Your task to perform on an android device: See recent photos Image 0: 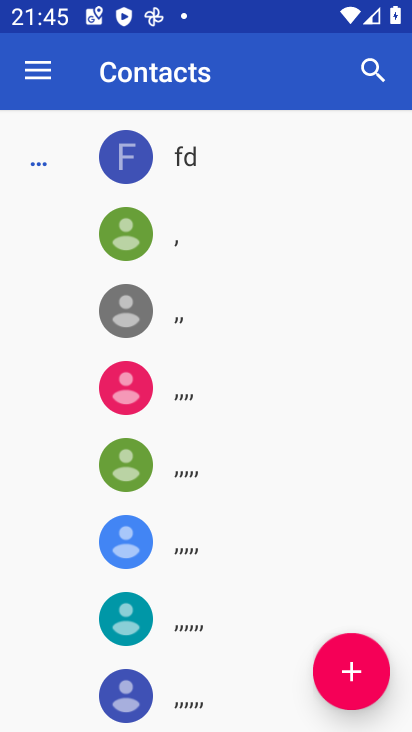
Step 0: press home button
Your task to perform on an android device: See recent photos Image 1: 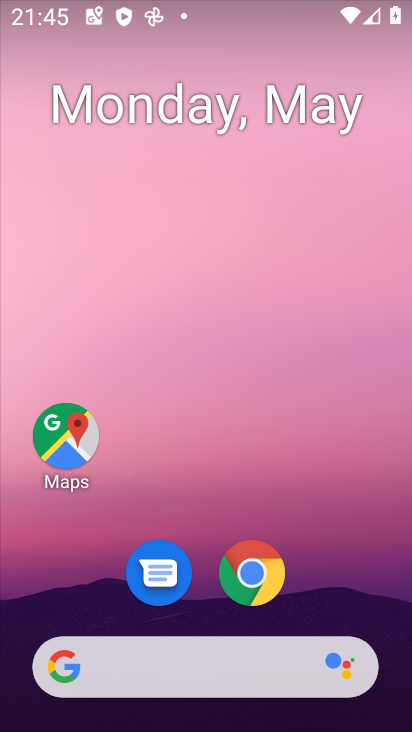
Step 1: drag from (338, 574) to (257, 36)
Your task to perform on an android device: See recent photos Image 2: 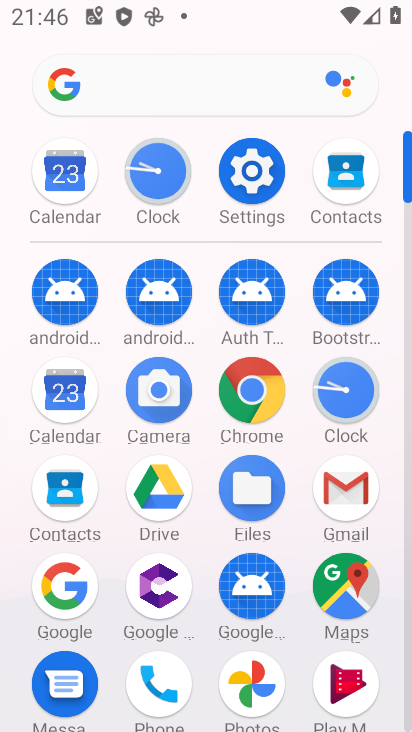
Step 2: click (245, 665)
Your task to perform on an android device: See recent photos Image 3: 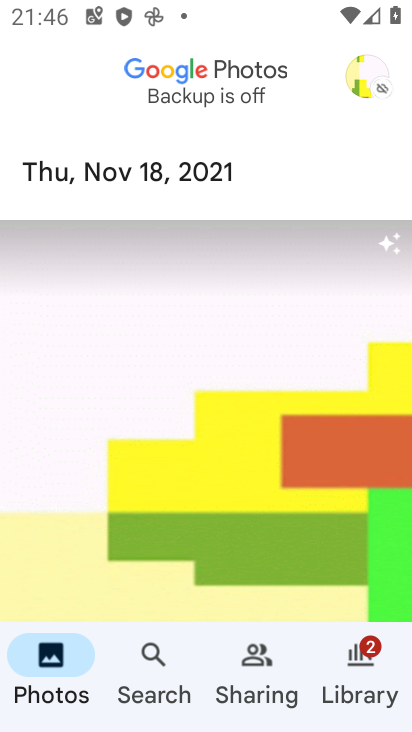
Step 3: task complete